Your task to perform on an android device: Open sound settings Image 0: 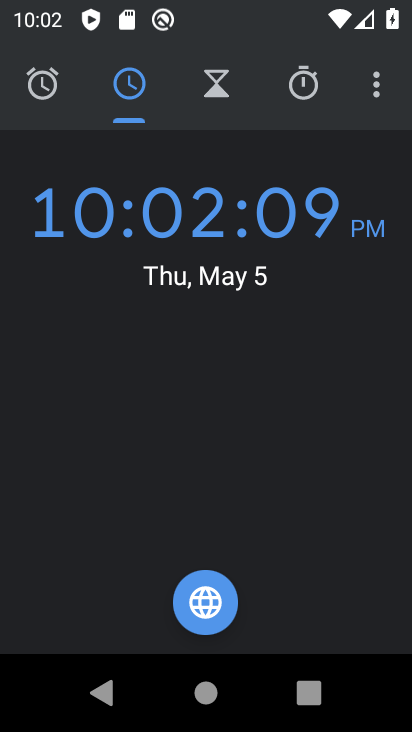
Step 0: press home button
Your task to perform on an android device: Open sound settings Image 1: 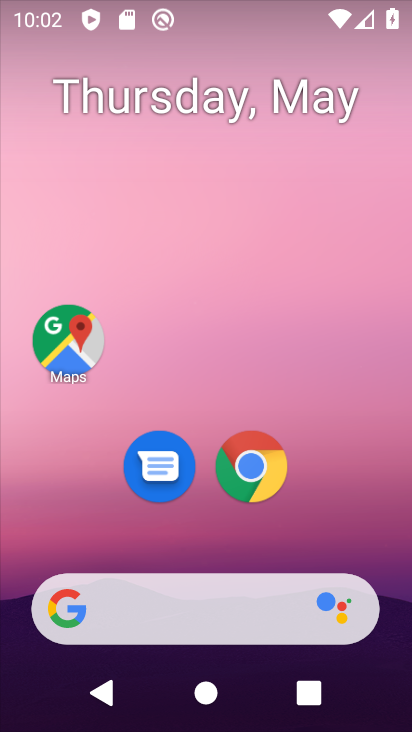
Step 1: drag from (323, 516) to (264, 115)
Your task to perform on an android device: Open sound settings Image 2: 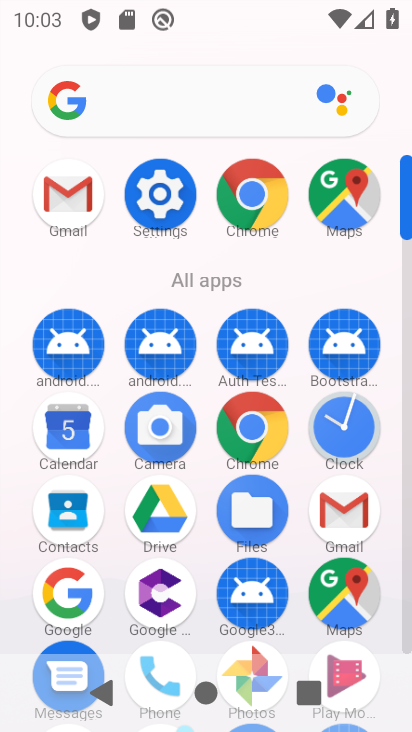
Step 2: click (165, 216)
Your task to perform on an android device: Open sound settings Image 3: 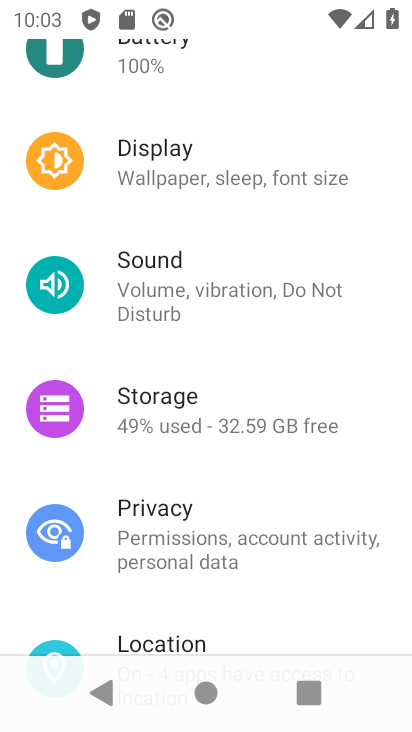
Step 3: click (217, 309)
Your task to perform on an android device: Open sound settings Image 4: 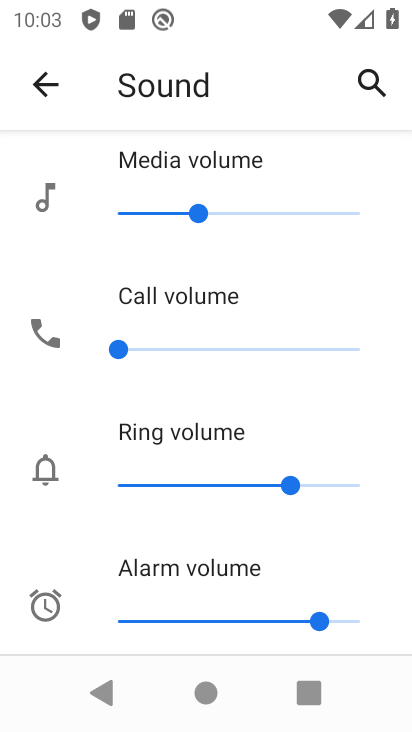
Step 4: task complete